Your task to perform on an android device: Go to Yahoo.com Image 0: 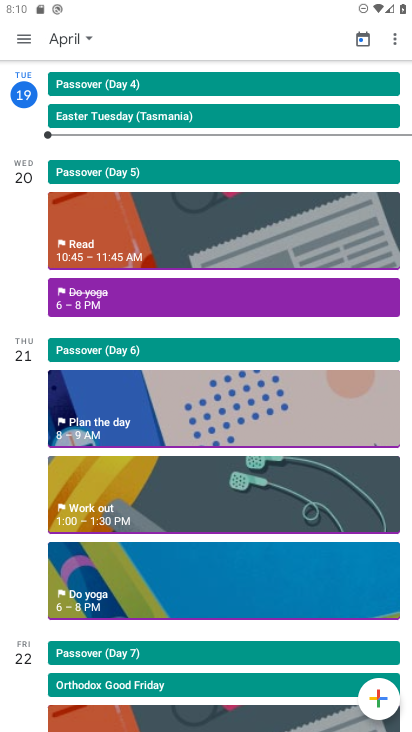
Step 0: press home button
Your task to perform on an android device: Go to Yahoo.com Image 1: 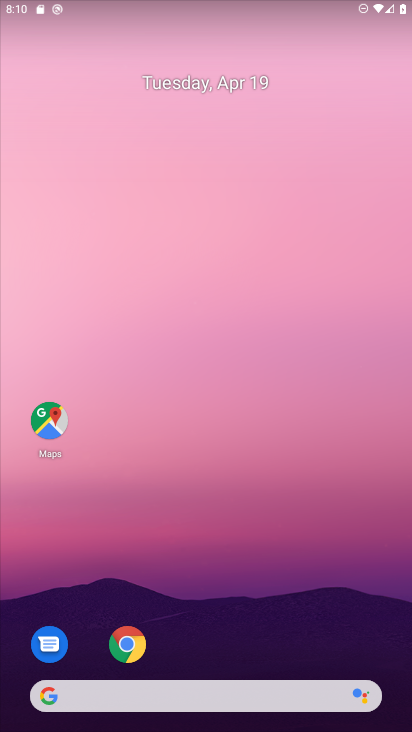
Step 1: click (127, 646)
Your task to perform on an android device: Go to Yahoo.com Image 2: 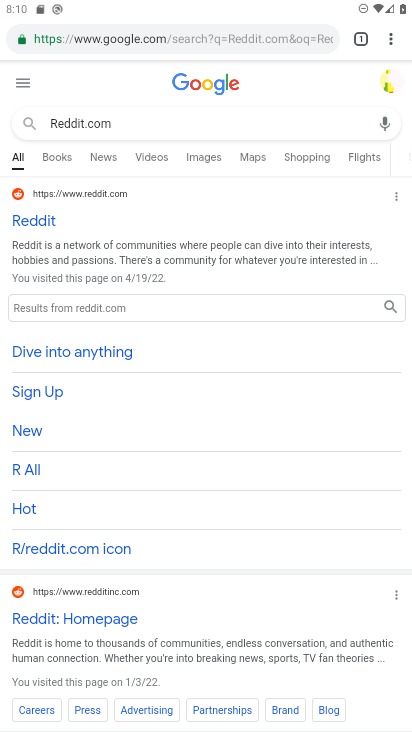
Step 2: click (131, 125)
Your task to perform on an android device: Go to Yahoo.com Image 3: 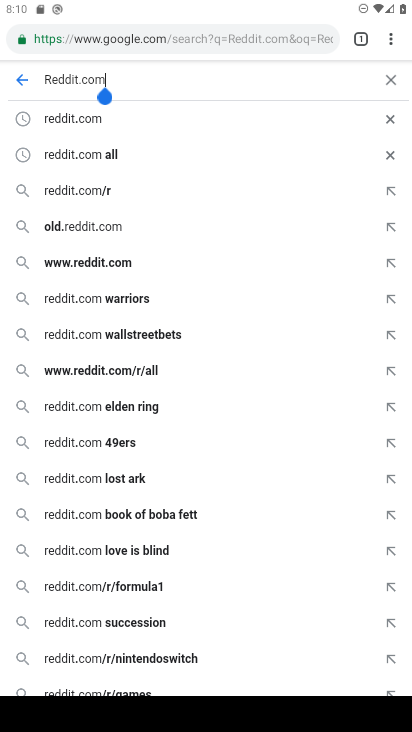
Step 3: click (398, 86)
Your task to perform on an android device: Go to Yahoo.com Image 4: 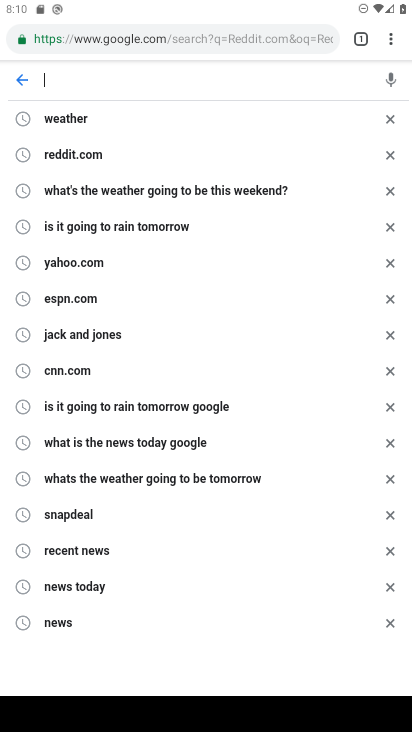
Step 4: type "Yahoo.com"
Your task to perform on an android device: Go to Yahoo.com Image 5: 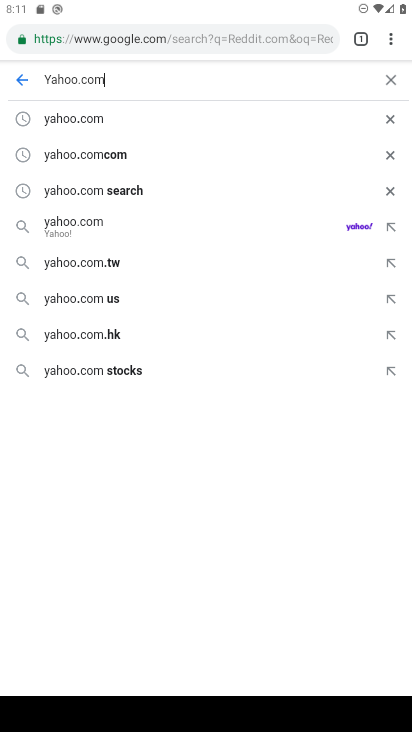
Step 5: click (68, 117)
Your task to perform on an android device: Go to Yahoo.com Image 6: 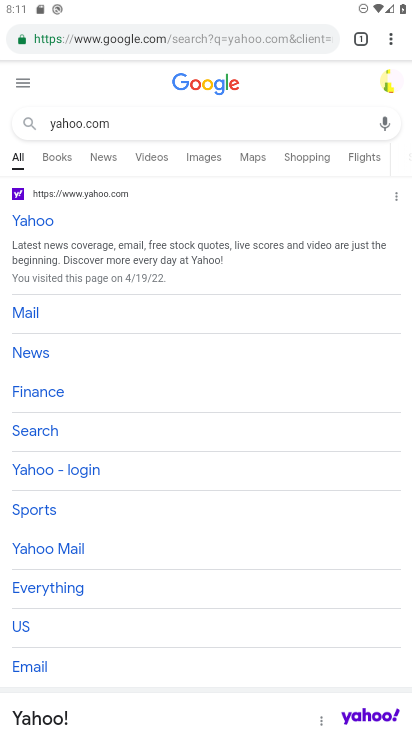
Step 6: task complete